Your task to perform on an android device: find photos in the google photos app Image 0: 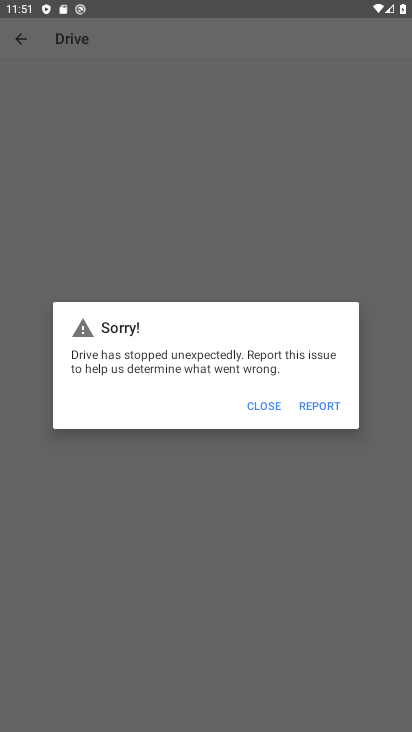
Step 0: press home button
Your task to perform on an android device: find photos in the google photos app Image 1: 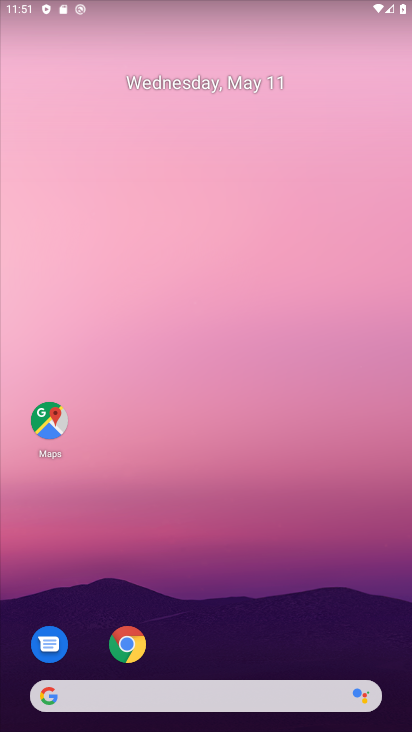
Step 1: drag from (235, 624) to (164, 70)
Your task to perform on an android device: find photos in the google photos app Image 2: 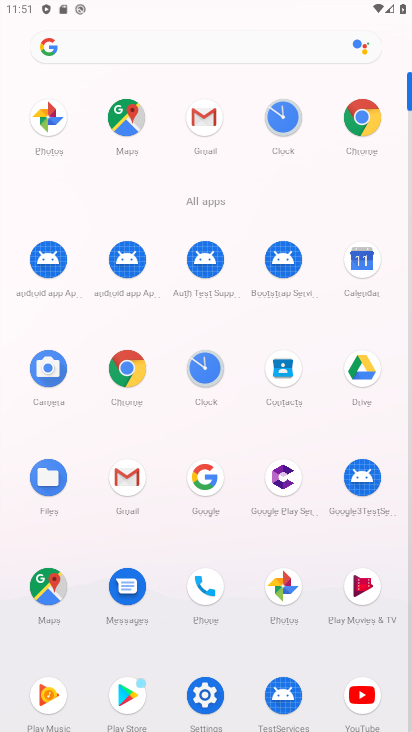
Step 2: click (286, 588)
Your task to perform on an android device: find photos in the google photos app Image 3: 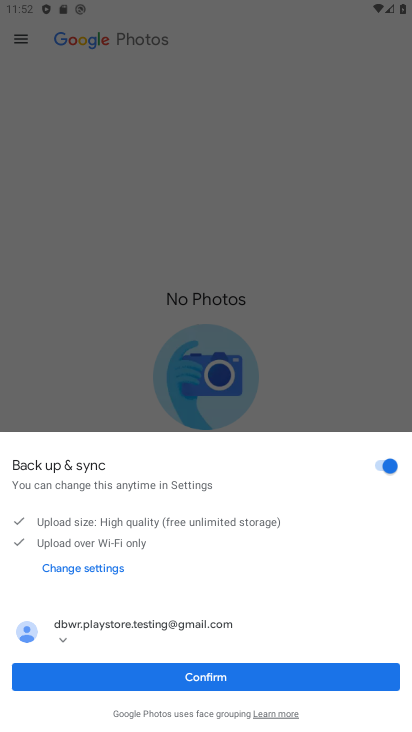
Step 3: click (271, 679)
Your task to perform on an android device: find photos in the google photos app Image 4: 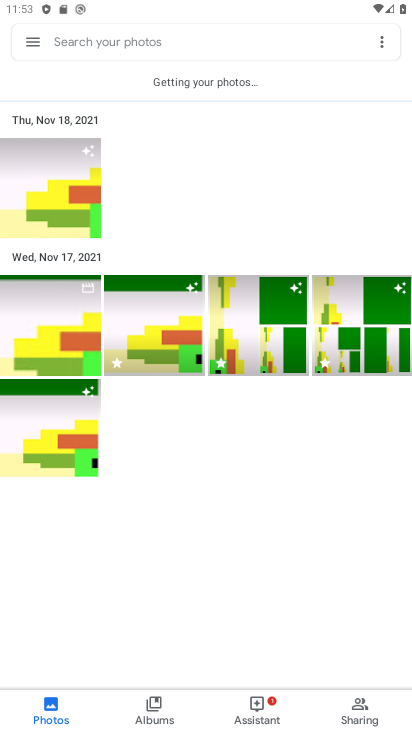
Step 4: task complete